Your task to perform on an android device: View the shopping cart on newegg. Search for razer blade on newegg, select the first entry, add it to the cart, then select checkout. Image 0: 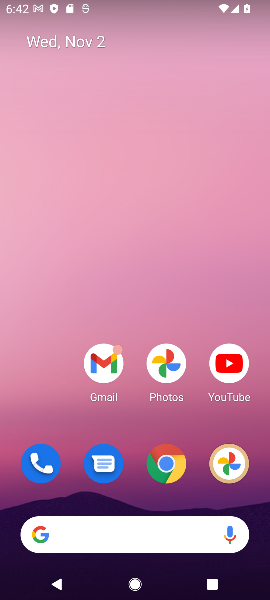
Step 0: click (168, 467)
Your task to perform on an android device: View the shopping cart on newegg. Search for razer blade on newegg, select the first entry, add it to the cart, then select checkout. Image 1: 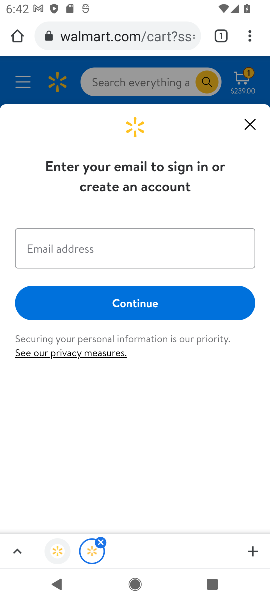
Step 1: click (103, 37)
Your task to perform on an android device: View the shopping cart on newegg. Search for razer blade on newegg, select the first entry, add it to the cart, then select checkout. Image 2: 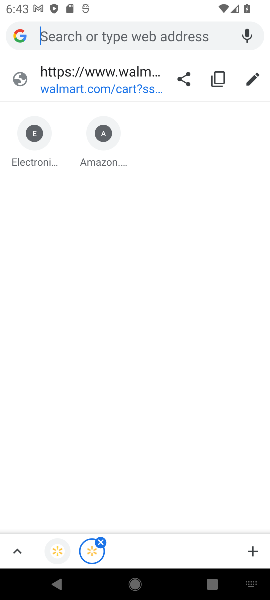
Step 2: type "newegg.com"
Your task to perform on an android device: View the shopping cart on newegg. Search for razer blade on newegg, select the first entry, add it to the cart, then select checkout. Image 3: 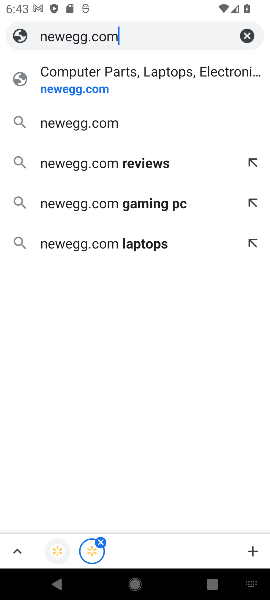
Step 3: click (87, 90)
Your task to perform on an android device: View the shopping cart on newegg. Search for razer blade on newegg, select the first entry, add it to the cart, then select checkout. Image 4: 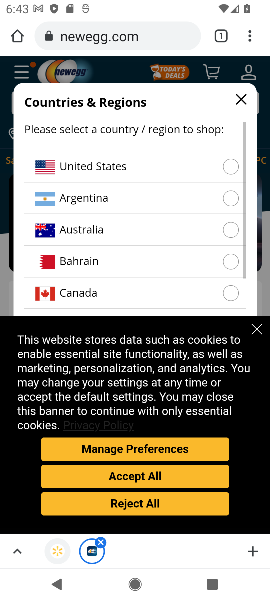
Step 4: click (242, 100)
Your task to perform on an android device: View the shopping cart on newegg. Search for razer blade on newegg, select the first entry, add it to the cart, then select checkout. Image 5: 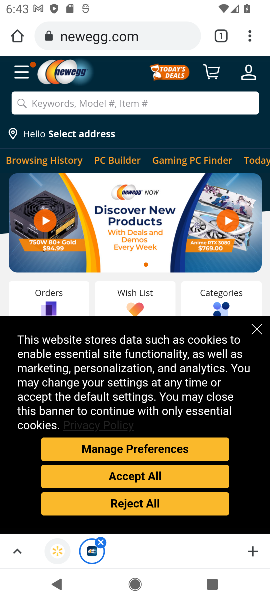
Step 5: click (216, 77)
Your task to perform on an android device: View the shopping cart on newegg. Search for razer blade on newegg, select the first entry, add it to the cart, then select checkout. Image 6: 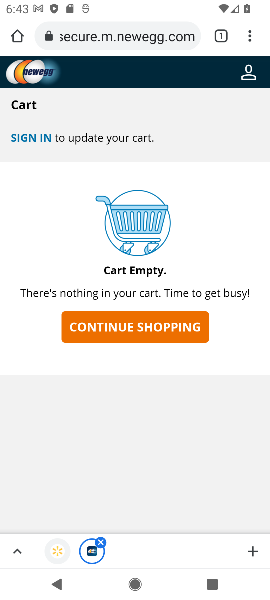
Step 6: press back button
Your task to perform on an android device: View the shopping cart on newegg. Search for razer blade on newegg, select the first entry, add it to the cart, then select checkout. Image 7: 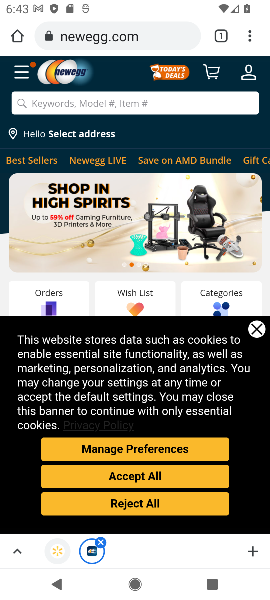
Step 7: click (81, 110)
Your task to perform on an android device: View the shopping cart on newegg. Search for razer blade on newegg, select the first entry, add it to the cart, then select checkout. Image 8: 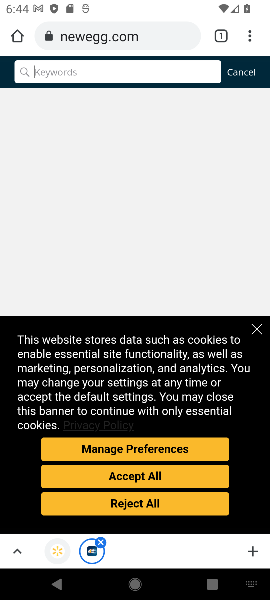
Step 8: type "razer blade"
Your task to perform on an android device: View the shopping cart on newegg. Search for razer blade on newegg, select the first entry, add it to the cart, then select checkout. Image 9: 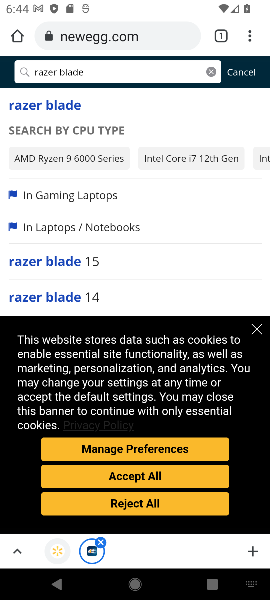
Step 9: click (49, 110)
Your task to perform on an android device: View the shopping cart on newegg. Search for razer blade on newegg, select the first entry, add it to the cart, then select checkout. Image 10: 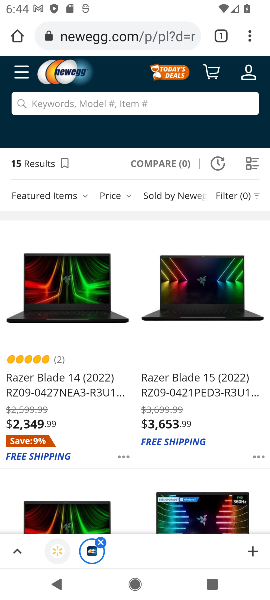
Step 10: click (67, 321)
Your task to perform on an android device: View the shopping cart on newegg. Search for razer blade on newegg, select the first entry, add it to the cart, then select checkout. Image 11: 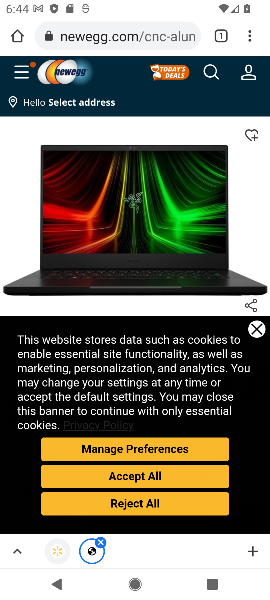
Step 11: click (143, 520)
Your task to perform on an android device: View the shopping cart on newegg. Search for razer blade on newegg, select the first entry, add it to the cart, then select checkout. Image 12: 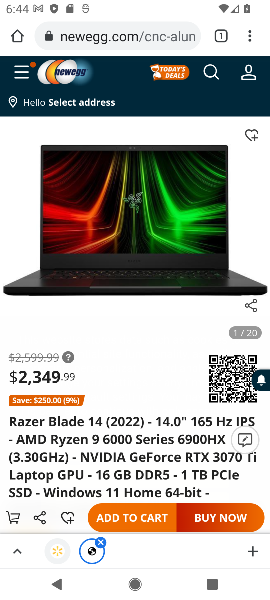
Step 12: click (261, 324)
Your task to perform on an android device: View the shopping cart on newegg. Search for razer blade on newegg, select the first entry, add it to the cart, then select checkout. Image 13: 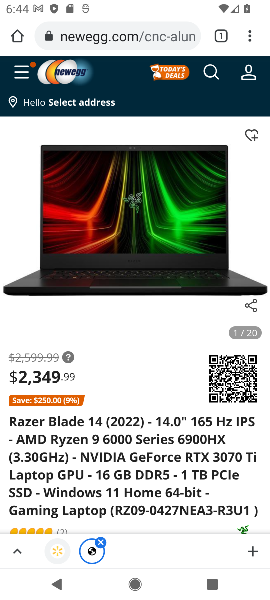
Step 13: click (144, 516)
Your task to perform on an android device: View the shopping cart on newegg. Search for razer blade on newegg, select the first entry, add it to the cart, then select checkout. Image 14: 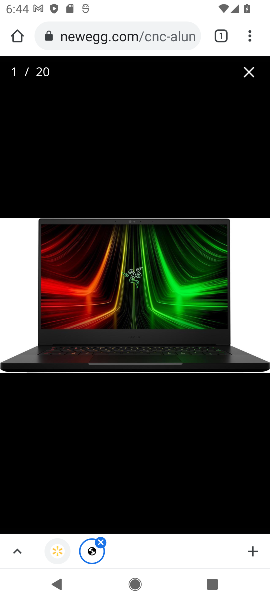
Step 14: drag from (146, 407) to (168, 280)
Your task to perform on an android device: View the shopping cart on newegg. Search for razer blade on newegg, select the first entry, add it to the cart, then select checkout. Image 15: 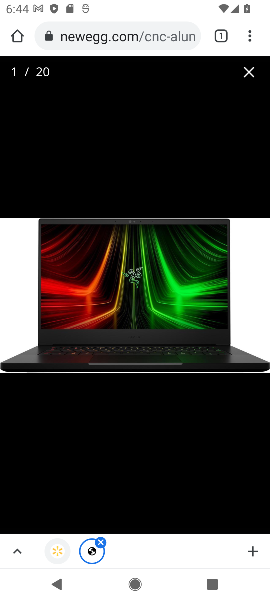
Step 15: click (246, 71)
Your task to perform on an android device: View the shopping cart on newegg. Search for razer blade on newegg, select the first entry, add it to the cart, then select checkout. Image 16: 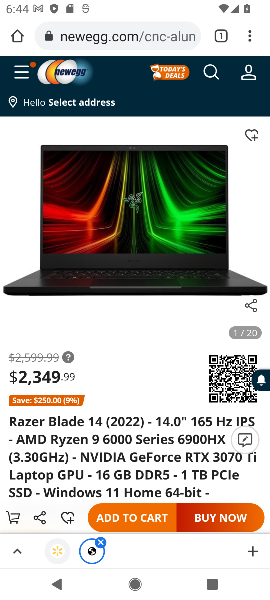
Step 16: click (132, 518)
Your task to perform on an android device: View the shopping cart on newegg. Search for razer blade on newegg, select the first entry, add it to the cart, then select checkout. Image 17: 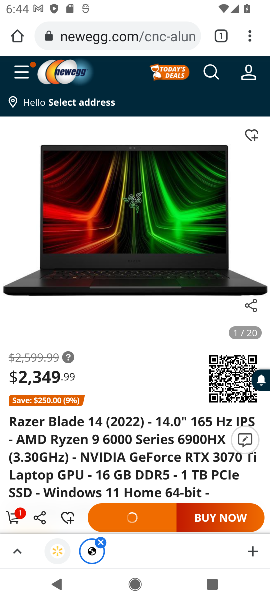
Step 17: drag from (135, 452) to (163, 177)
Your task to perform on an android device: View the shopping cart on newegg. Search for razer blade on newegg, select the first entry, add it to the cart, then select checkout. Image 18: 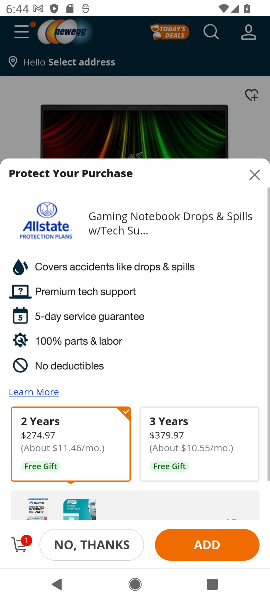
Step 18: click (253, 176)
Your task to perform on an android device: View the shopping cart on newegg. Search for razer blade on newegg, select the first entry, add it to the cart, then select checkout. Image 19: 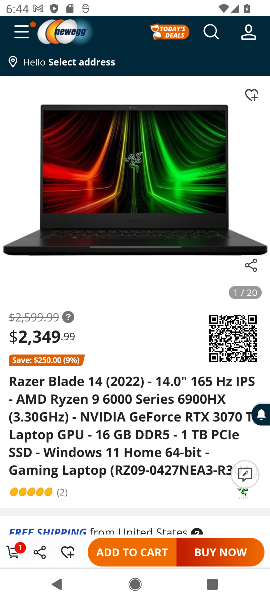
Step 19: click (14, 549)
Your task to perform on an android device: View the shopping cart on newegg. Search for razer blade on newegg, select the first entry, add it to the cart, then select checkout. Image 20: 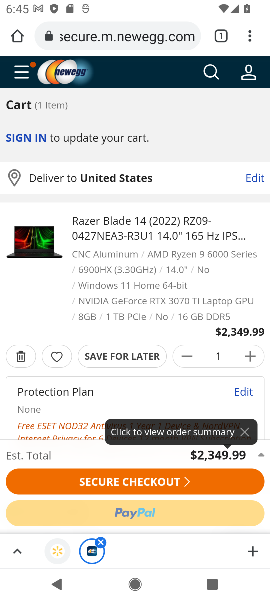
Step 20: click (115, 485)
Your task to perform on an android device: View the shopping cart on newegg. Search for razer blade on newegg, select the first entry, add it to the cart, then select checkout. Image 21: 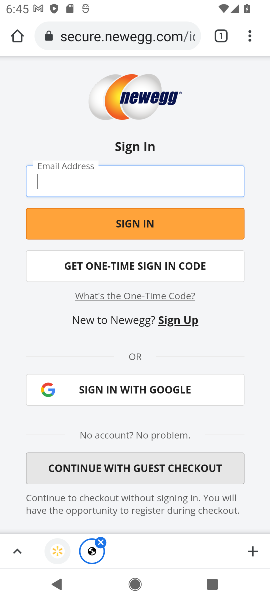
Step 21: task complete